Your task to perform on an android device: open a bookmark in the chrome app Image 0: 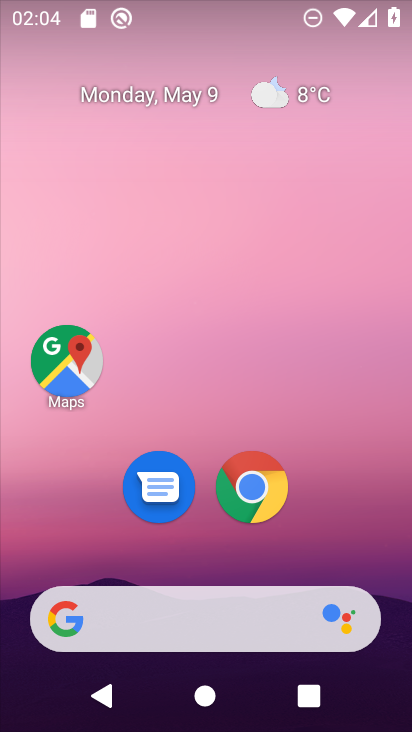
Step 0: click (243, 459)
Your task to perform on an android device: open a bookmark in the chrome app Image 1: 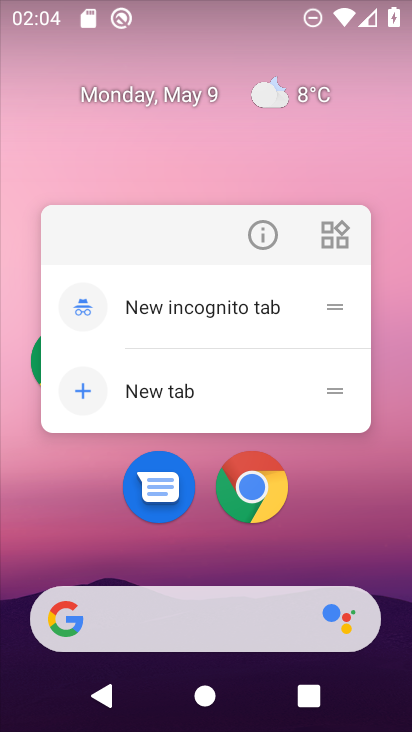
Step 1: click (244, 481)
Your task to perform on an android device: open a bookmark in the chrome app Image 2: 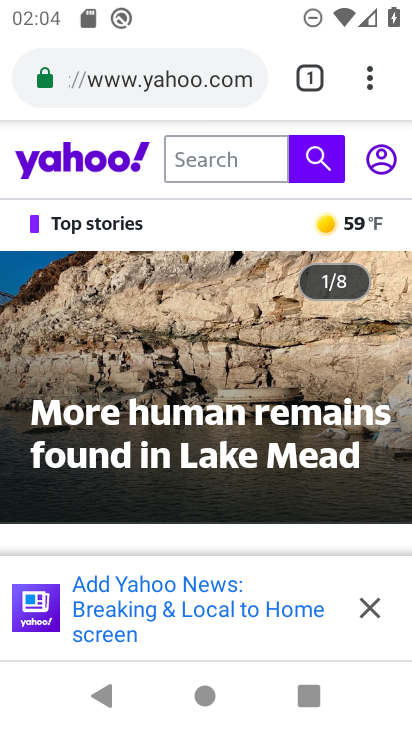
Step 2: click (362, 90)
Your task to perform on an android device: open a bookmark in the chrome app Image 3: 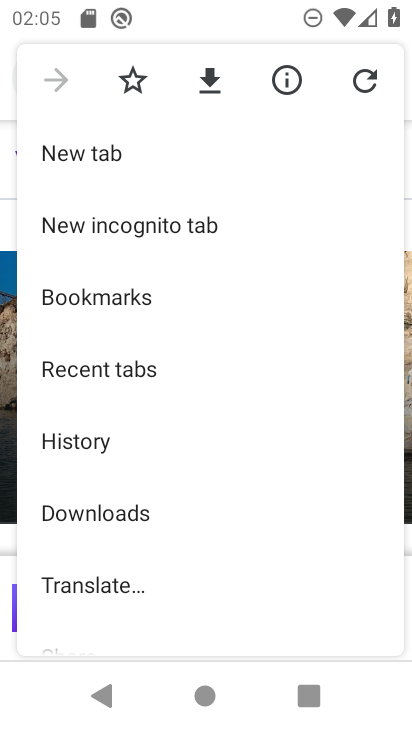
Step 3: drag from (253, 548) to (223, 343)
Your task to perform on an android device: open a bookmark in the chrome app Image 4: 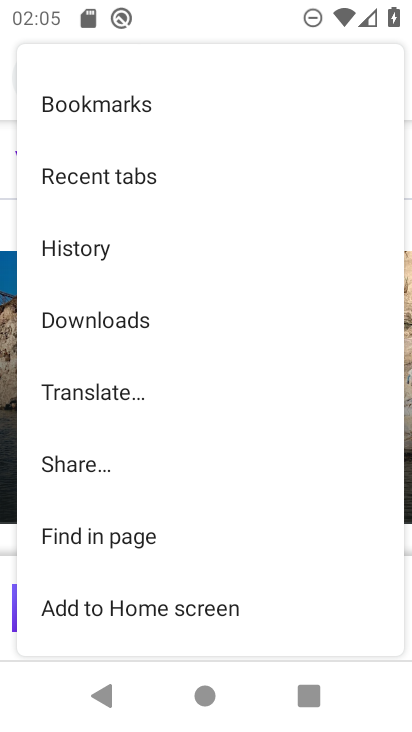
Step 4: drag from (171, 247) to (194, 401)
Your task to perform on an android device: open a bookmark in the chrome app Image 5: 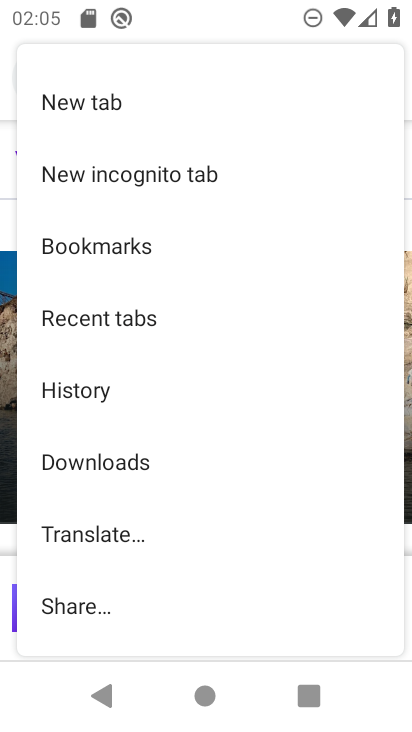
Step 5: click (149, 235)
Your task to perform on an android device: open a bookmark in the chrome app Image 6: 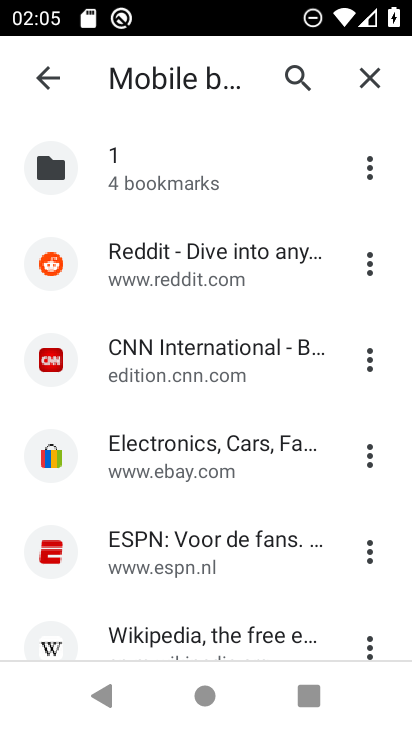
Step 6: click (182, 451)
Your task to perform on an android device: open a bookmark in the chrome app Image 7: 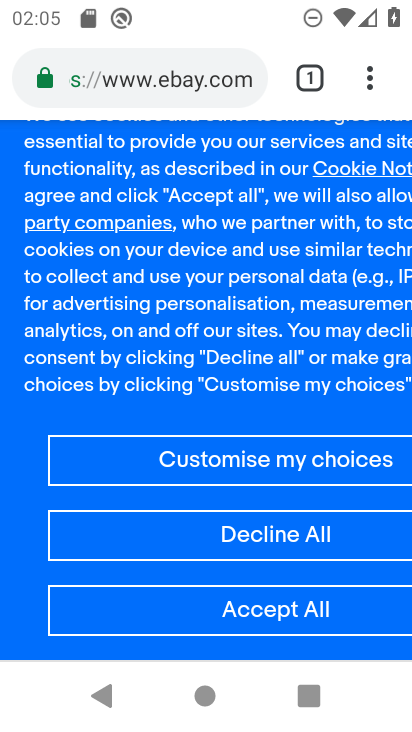
Step 7: task complete